Your task to perform on an android device: Open calendar and show me the fourth week of next month Image 0: 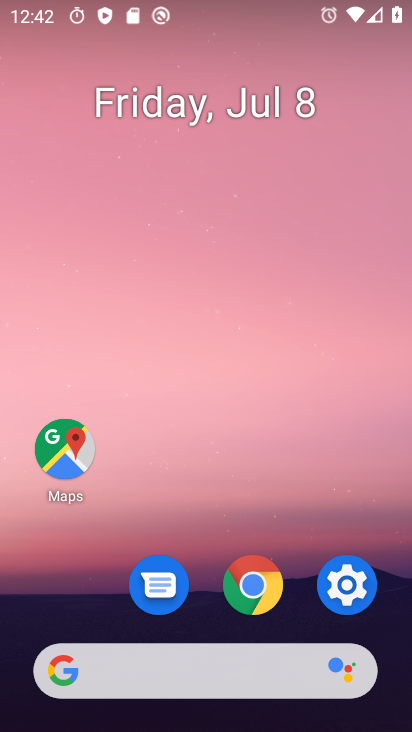
Step 0: drag from (291, 685) to (350, 209)
Your task to perform on an android device: Open calendar and show me the fourth week of next month Image 1: 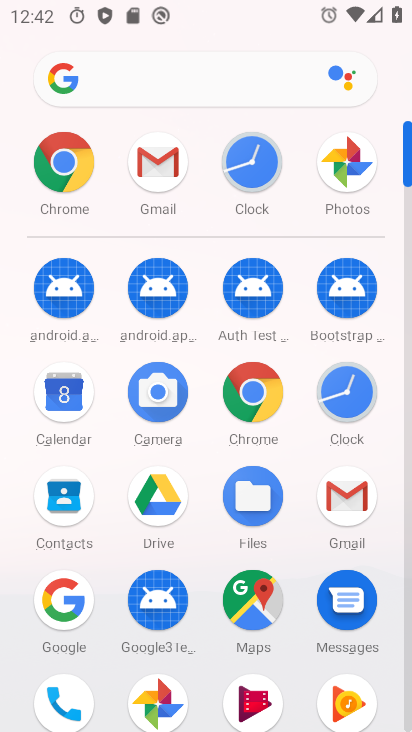
Step 1: click (60, 404)
Your task to perform on an android device: Open calendar and show me the fourth week of next month Image 2: 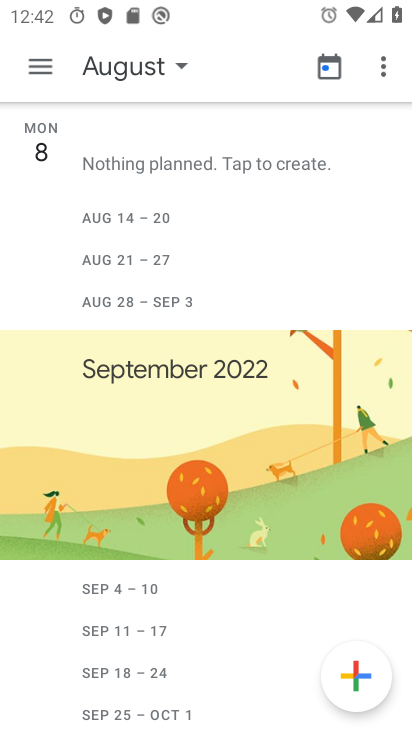
Step 2: click (30, 71)
Your task to perform on an android device: Open calendar and show me the fourth week of next month Image 3: 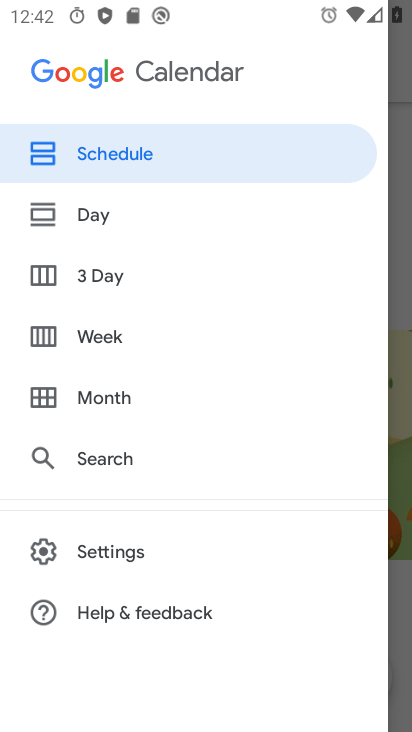
Step 3: click (148, 393)
Your task to perform on an android device: Open calendar and show me the fourth week of next month Image 4: 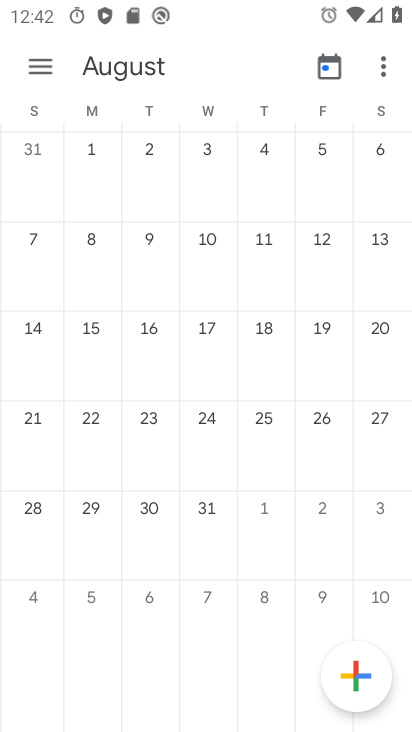
Step 4: click (104, 451)
Your task to perform on an android device: Open calendar and show me the fourth week of next month Image 5: 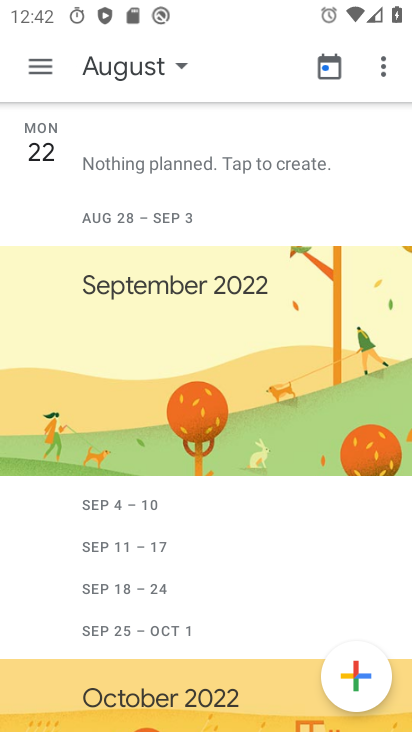
Step 5: task complete